Your task to perform on an android device: clear all cookies in the chrome app Image 0: 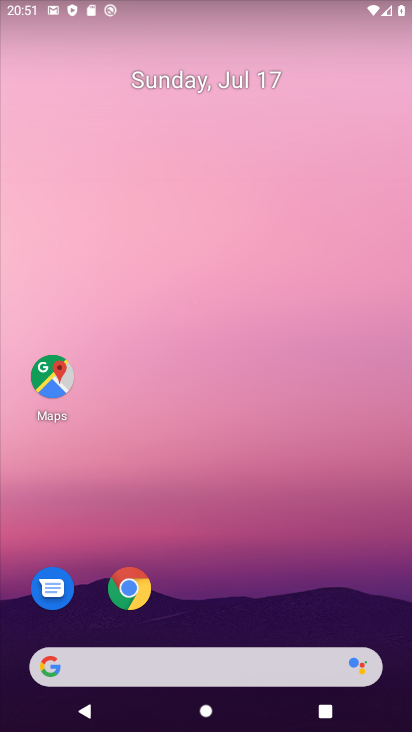
Step 0: press home button
Your task to perform on an android device: clear all cookies in the chrome app Image 1: 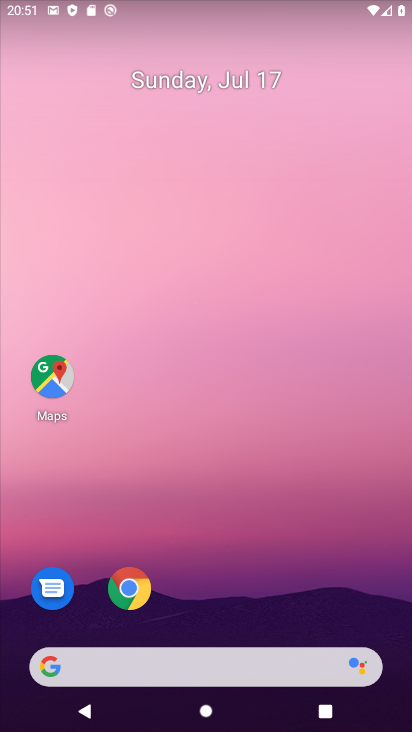
Step 1: click (134, 594)
Your task to perform on an android device: clear all cookies in the chrome app Image 2: 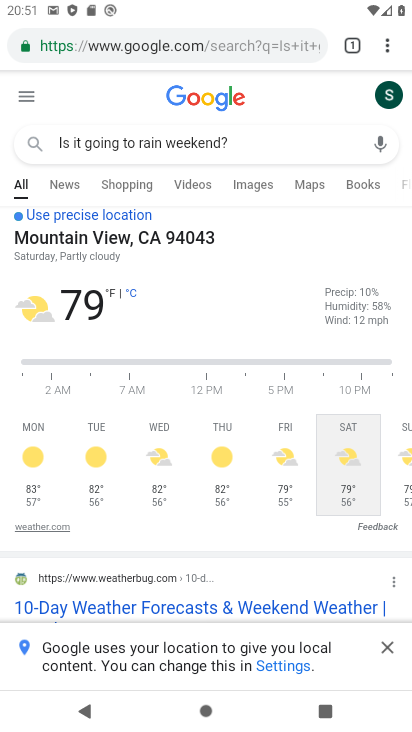
Step 2: drag from (382, 45) to (234, 493)
Your task to perform on an android device: clear all cookies in the chrome app Image 3: 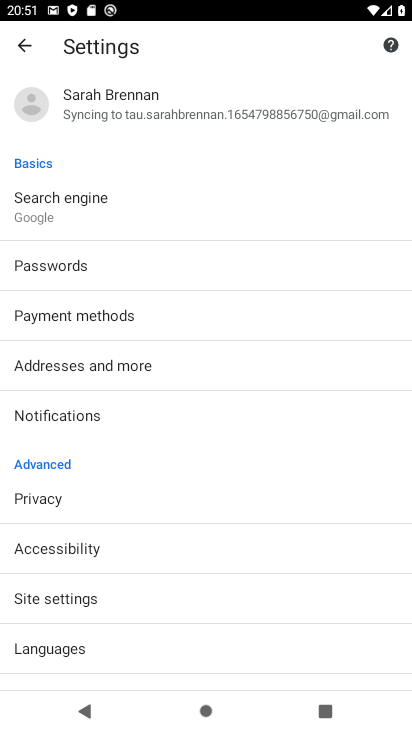
Step 3: click (105, 494)
Your task to perform on an android device: clear all cookies in the chrome app Image 4: 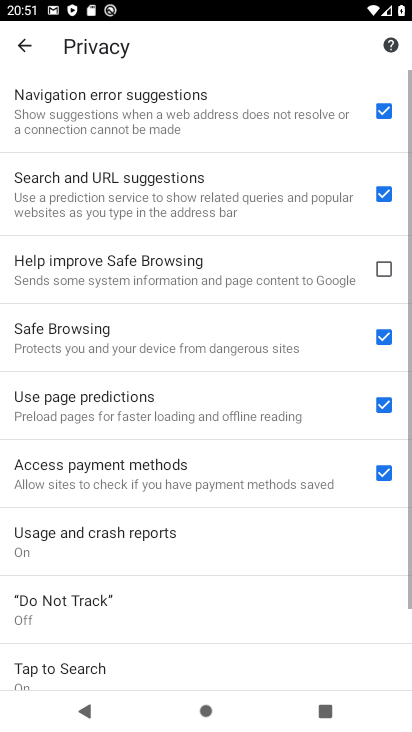
Step 4: drag from (71, 598) to (206, 36)
Your task to perform on an android device: clear all cookies in the chrome app Image 5: 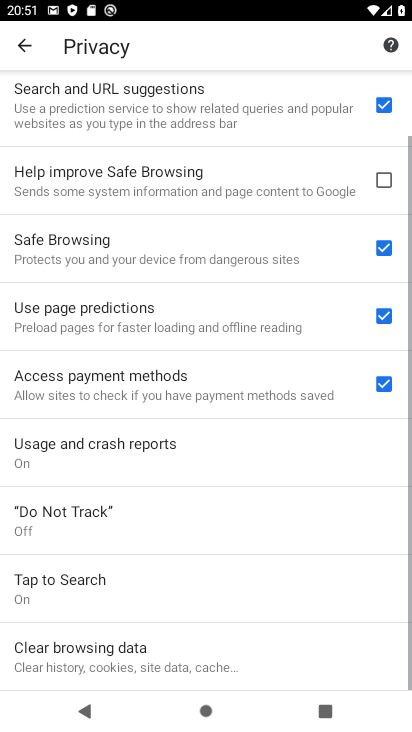
Step 5: click (123, 644)
Your task to perform on an android device: clear all cookies in the chrome app Image 6: 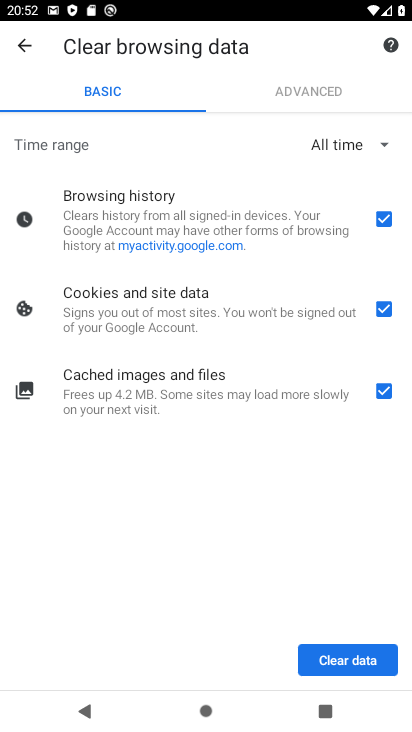
Step 6: click (328, 668)
Your task to perform on an android device: clear all cookies in the chrome app Image 7: 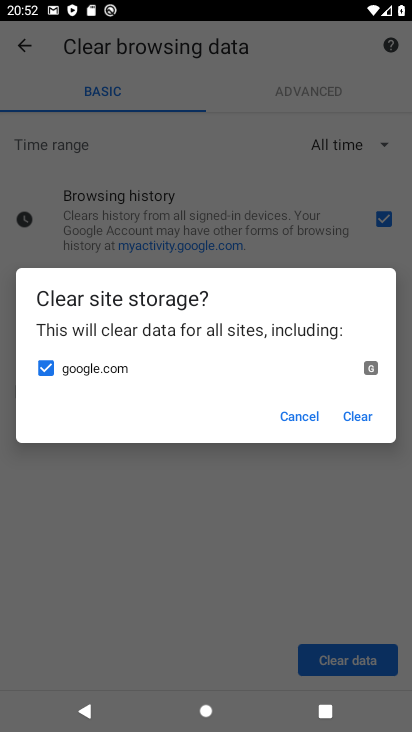
Step 7: click (359, 430)
Your task to perform on an android device: clear all cookies in the chrome app Image 8: 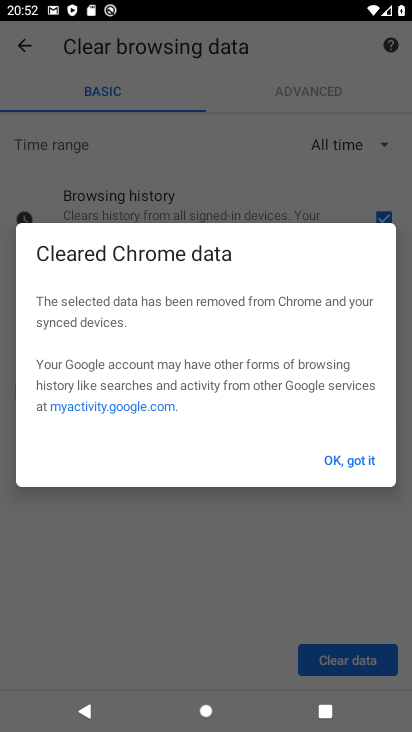
Step 8: click (355, 457)
Your task to perform on an android device: clear all cookies in the chrome app Image 9: 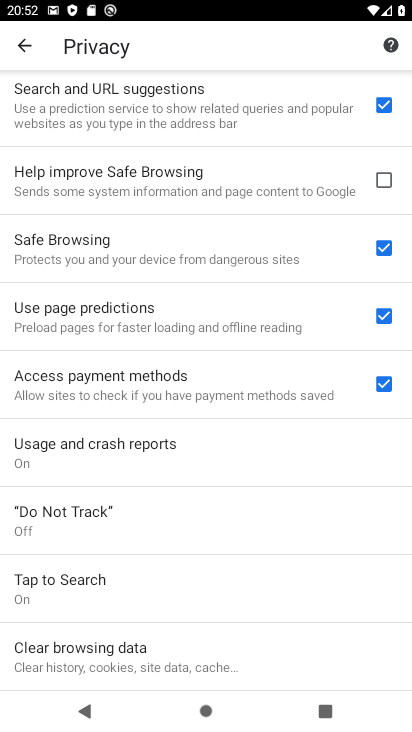
Step 9: task complete